Your task to perform on an android device: Search for usb-c to usb-b on ebay.com, select the first entry, add it to the cart, then select checkout. Image 0: 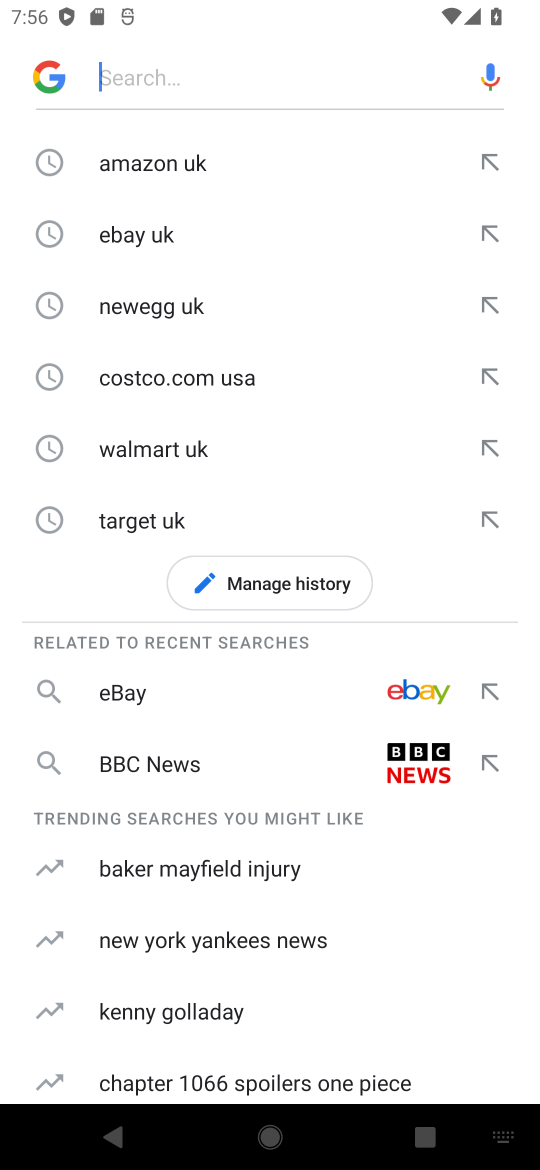
Step 0: press home button
Your task to perform on an android device: Search for usb-c to usb-b on ebay.com, select the first entry, add it to the cart, then select checkout. Image 1: 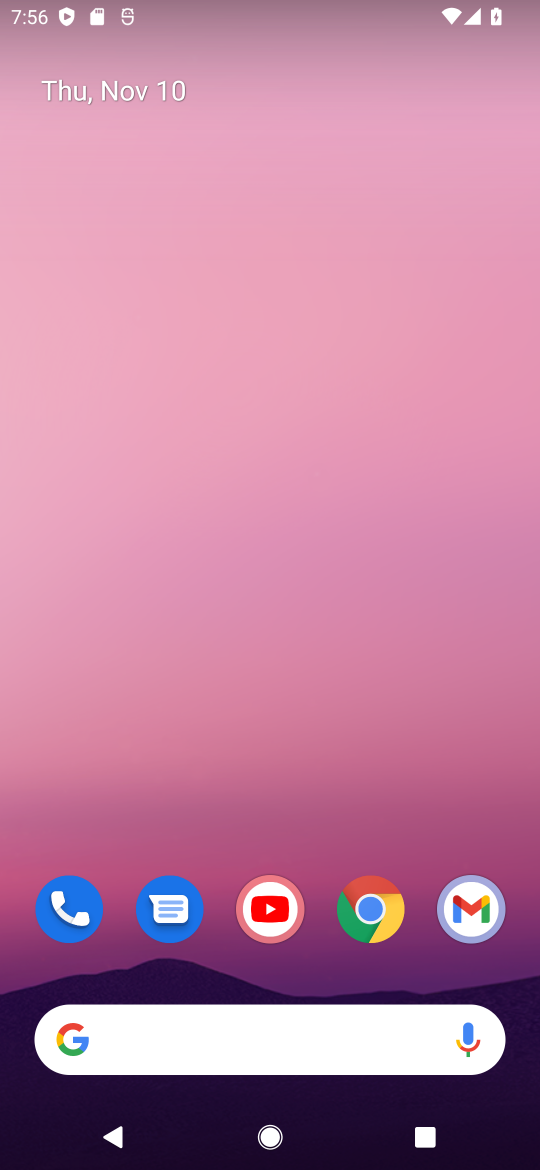
Step 1: drag from (240, 999) to (266, 137)
Your task to perform on an android device: Search for usb-c to usb-b on ebay.com, select the first entry, add it to the cart, then select checkout. Image 2: 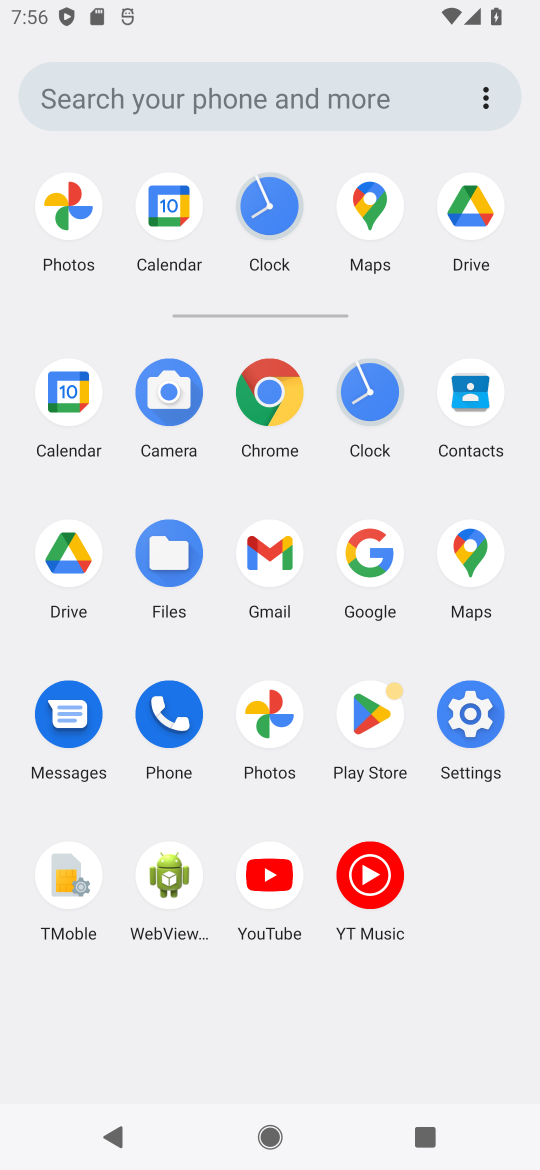
Step 2: click (362, 537)
Your task to perform on an android device: Search for usb-c to usb-b on ebay.com, select the first entry, add it to the cart, then select checkout. Image 3: 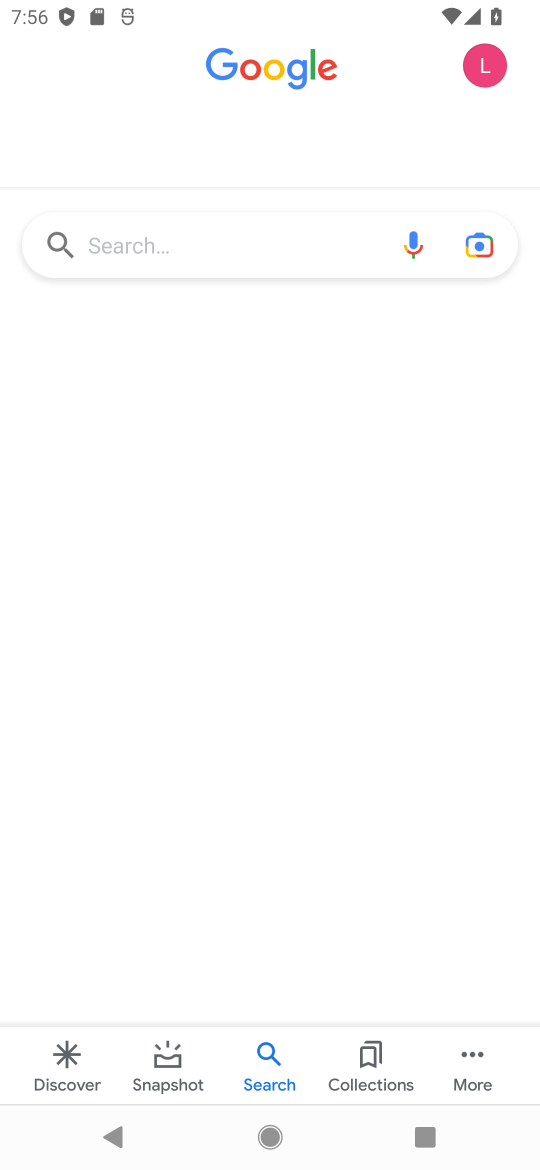
Step 3: click (222, 235)
Your task to perform on an android device: Search for usb-c to usb-b on ebay.com, select the first entry, add it to the cart, then select checkout. Image 4: 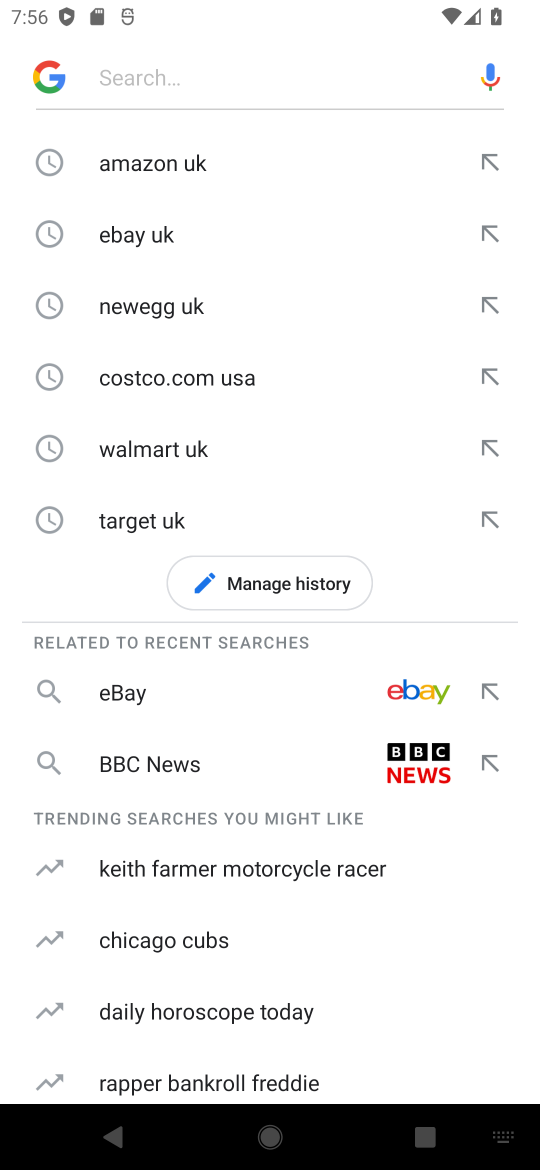
Step 4: type "ebay "
Your task to perform on an android device: Search for usb-c to usb-b on ebay.com, select the first entry, add it to the cart, then select checkout. Image 5: 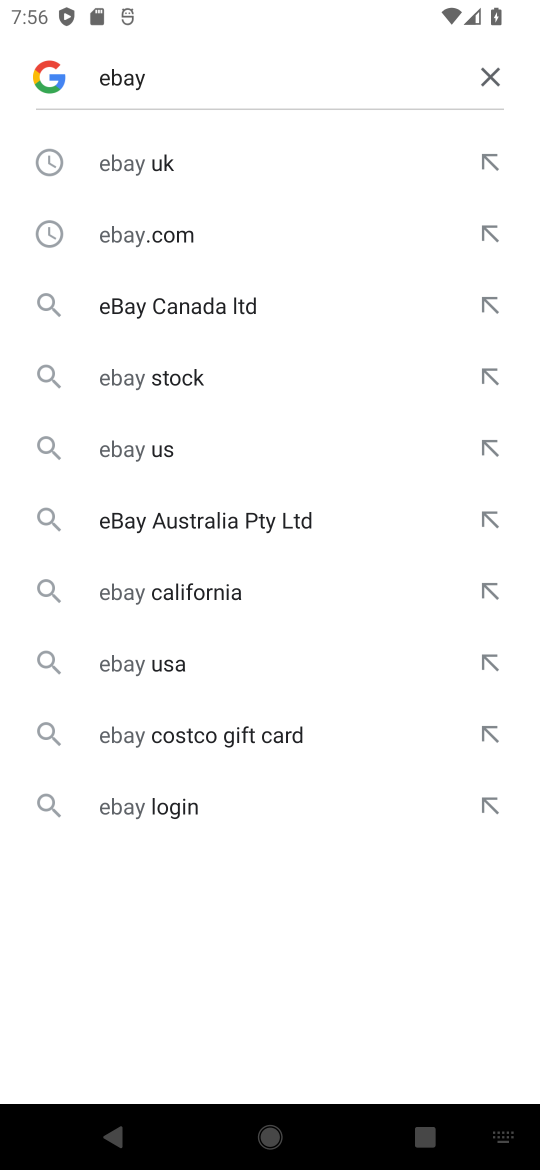
Step 5: click (153, 154)
Your task to perform on an android device: Search for usb-c to usb-b on ebay.com, select the first entry, add it to the cart, then select checkout. Image 6: 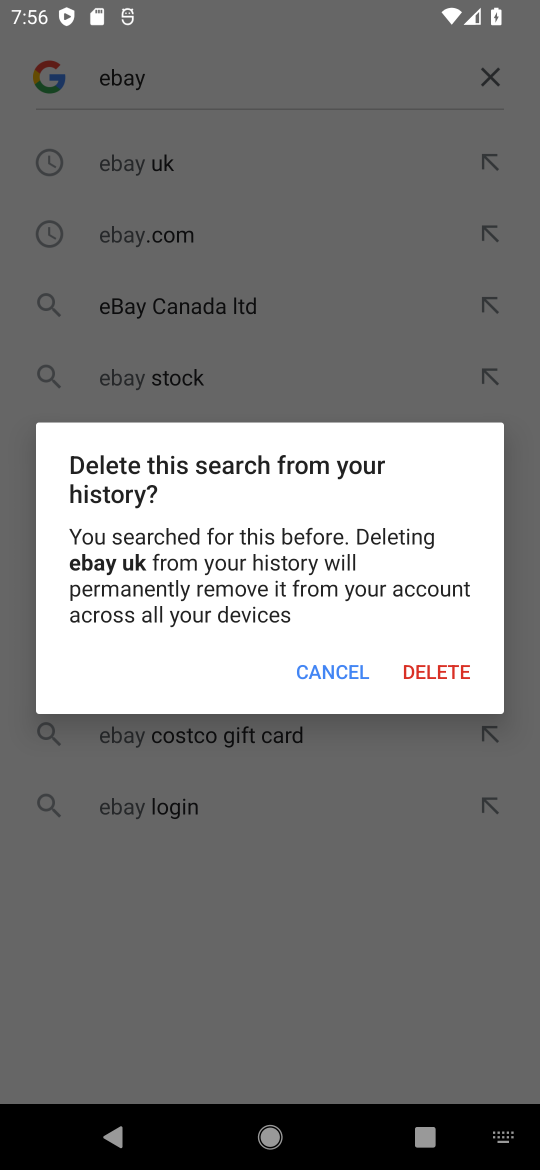
Step 6: click (293, 659)
Your task to perform on an android device: Search for usb-c to usb-b on ebay.com, select the first entry, add it to the cart, then select checkout. Image 7: 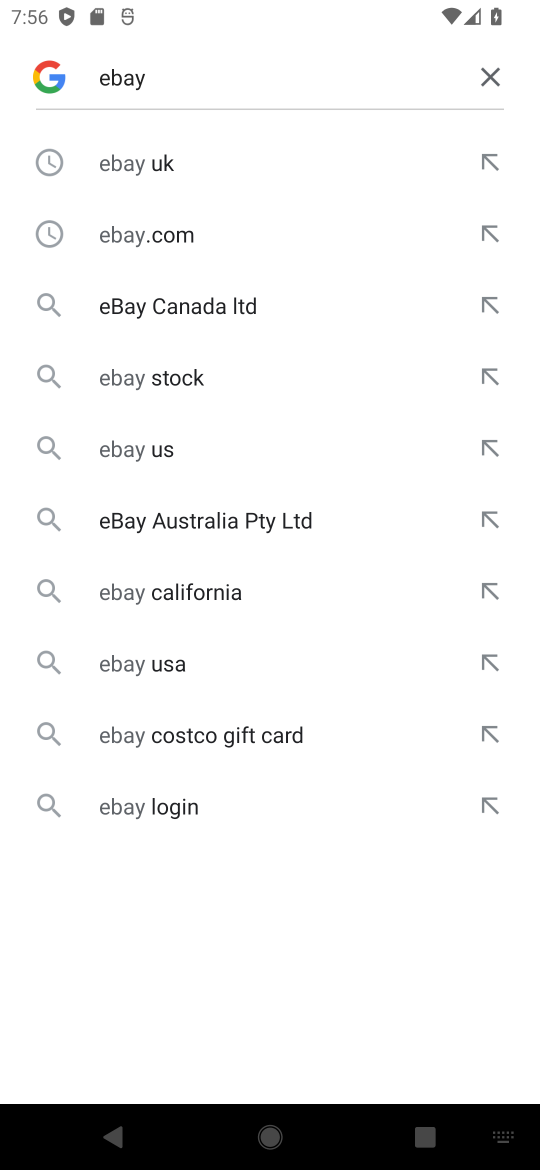
Step 7: click (170, 221)
Your task to perform on an android device: Search for usb-c to usb-b on ebay.com, select the first entry, add it to the cart, then select checkout. Image 8: 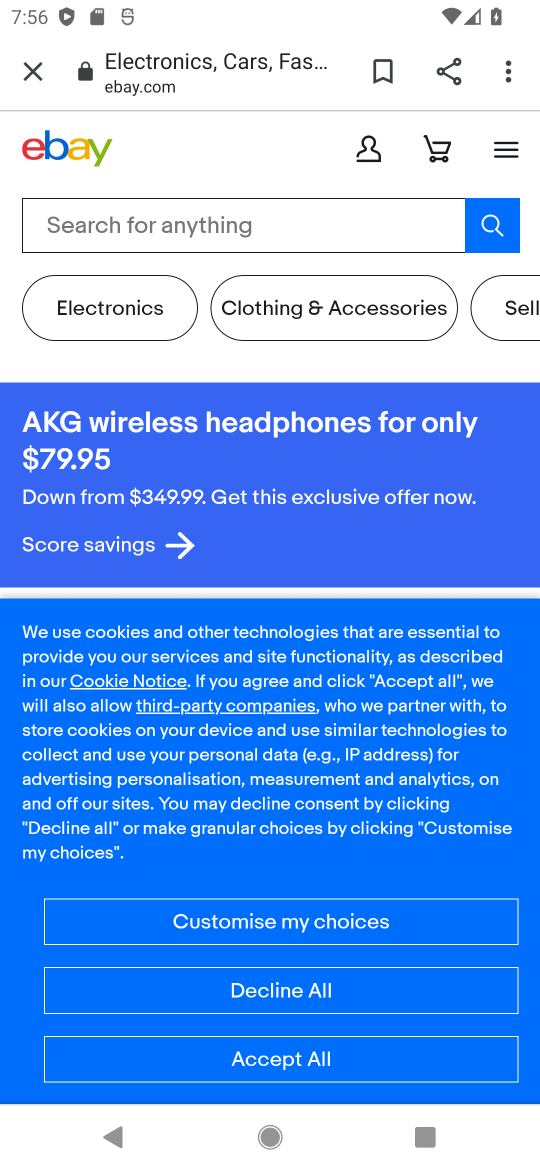
Step 8: click (156, 215)
Your task to perform on an android device: Search for usb-c to usb-b on ebay.com, select the first entry, add it to the cart, then select checkout. Image 9: 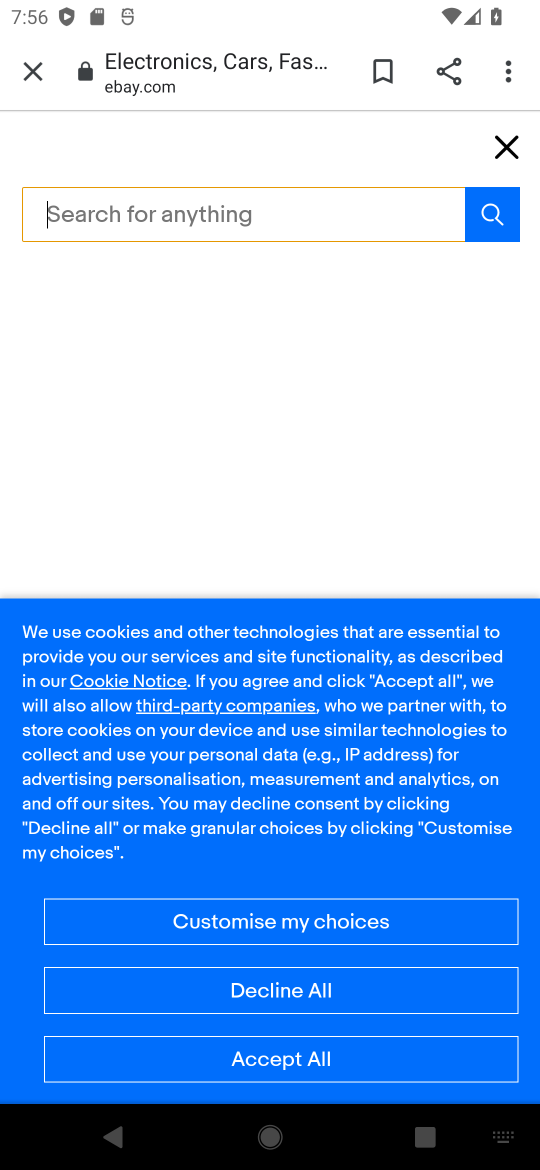
Step 9: click (317, 1042)
Your task to perform on an android device: Search for usb-c to usb-b on ebay.com, select the first entry, add it to the cart, then select checkout. Image 10: 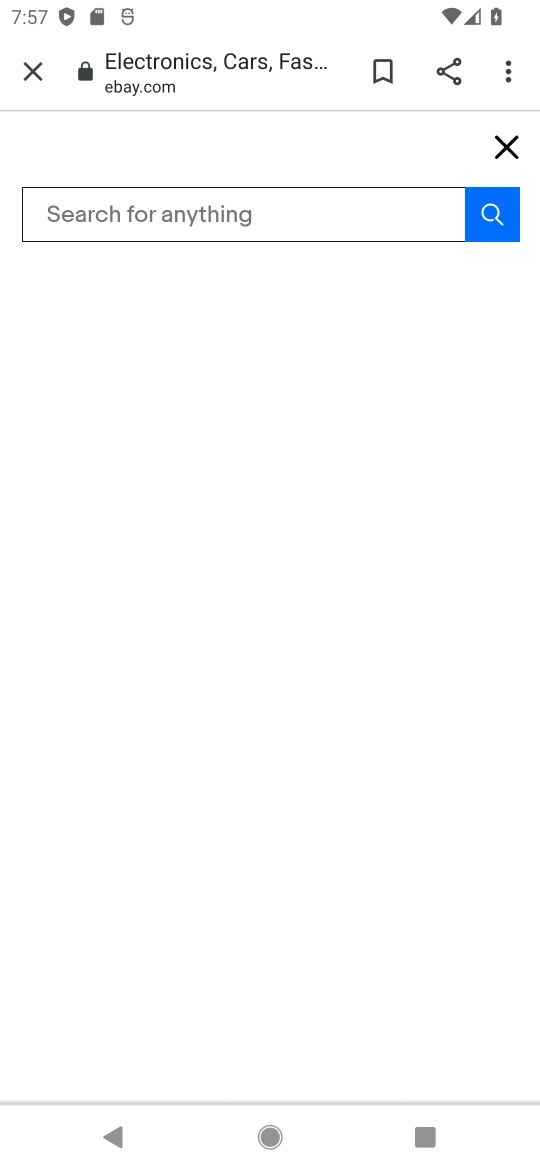
Step 10: click (273, 213)
Your task to perform on an android device: Search for usb-c to usb-b on ebay.com, select the first entry, add it to the cart, then select checkout. Image 11: 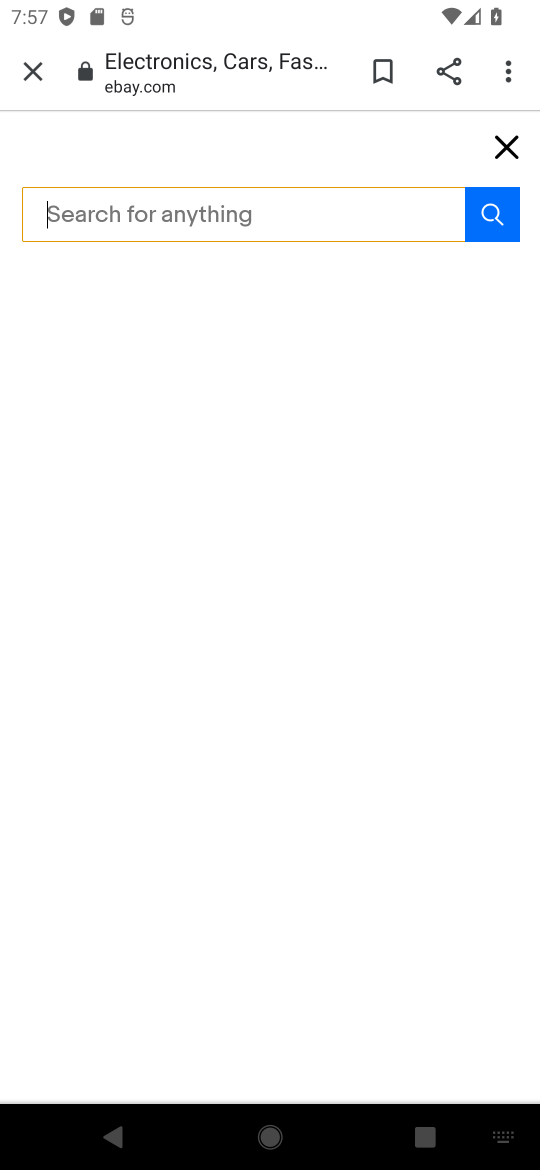
Step 11: type "usb-c to usb-b  "
Your task to perform on an android device: Search for usb-c to usb-b on ebay.com, select the first entry, add it to the cart, then select checkout. Image 12: 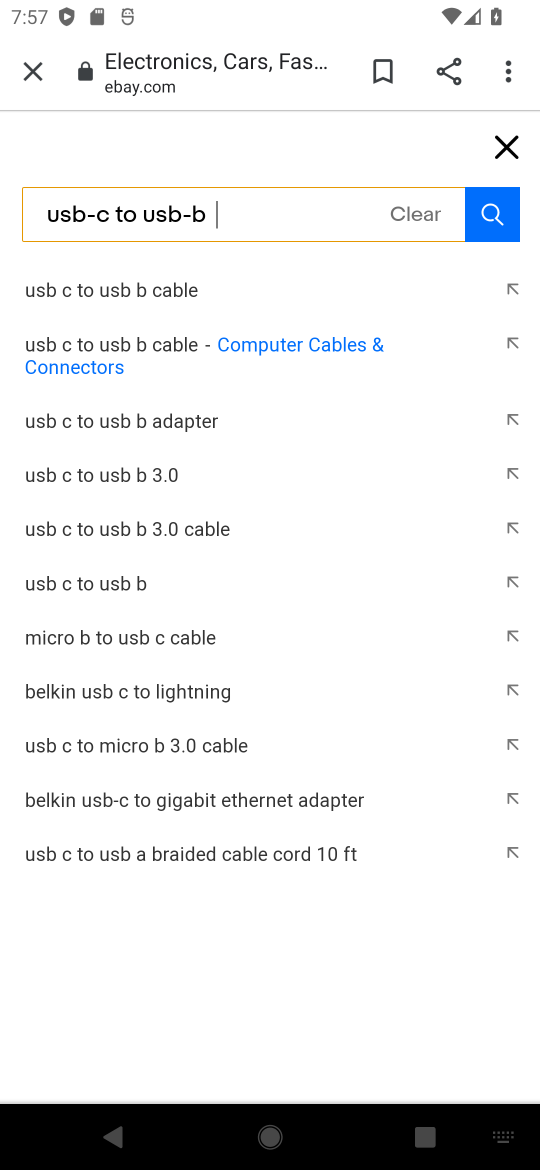
Step 12: click (88, 586)
Your task to perform on an android device: Search for usb-c to usb-b on ebay.com, select the first entry, add it to the cart, then select checkout. Image 13: 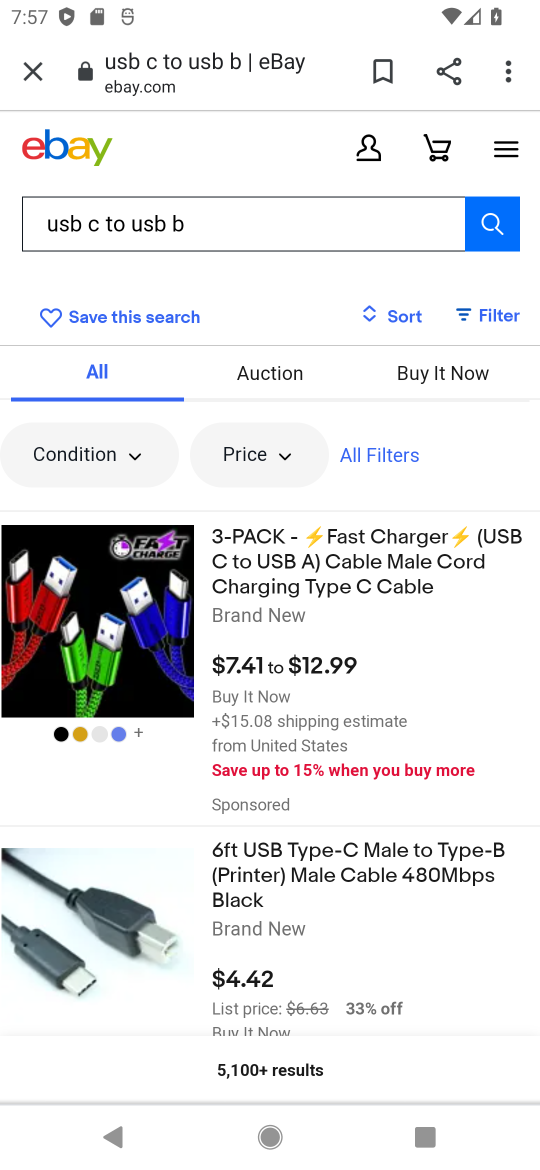
Step 13: drag from (327, 921) to (343, 668)
Your task to perform on an android device: Search for usb-c to usb-b on ebay.com, select the first entry, add it to the cart, then select checkout. Image 14: 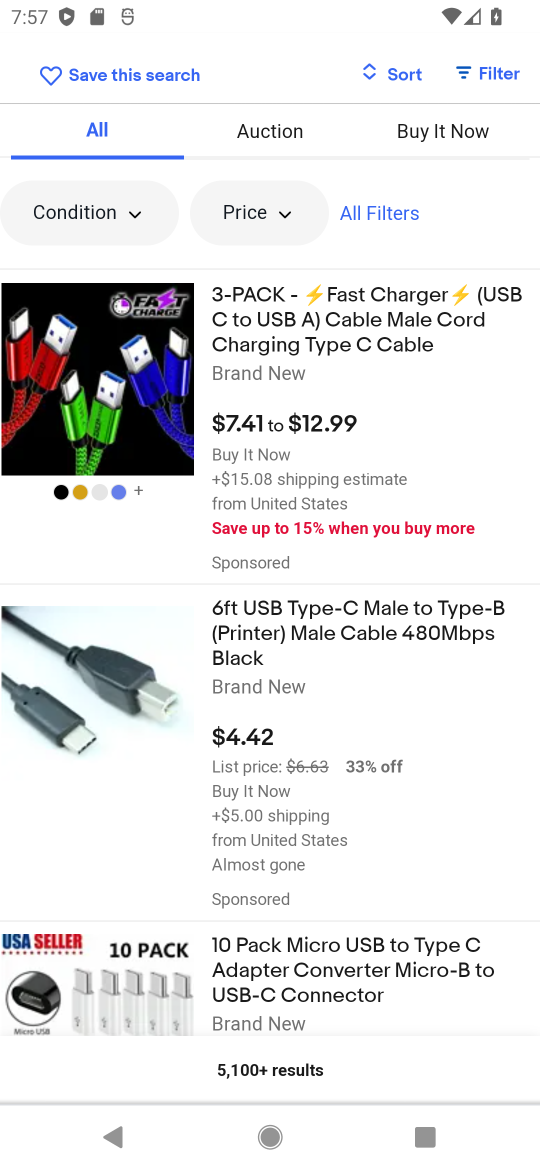
Step 14: click (340, 628)
Your task to perform on an android device: Search for usb-c to usb-b on ebay.com, select the first entry, add it to the cart, then select checkout. Image 15: 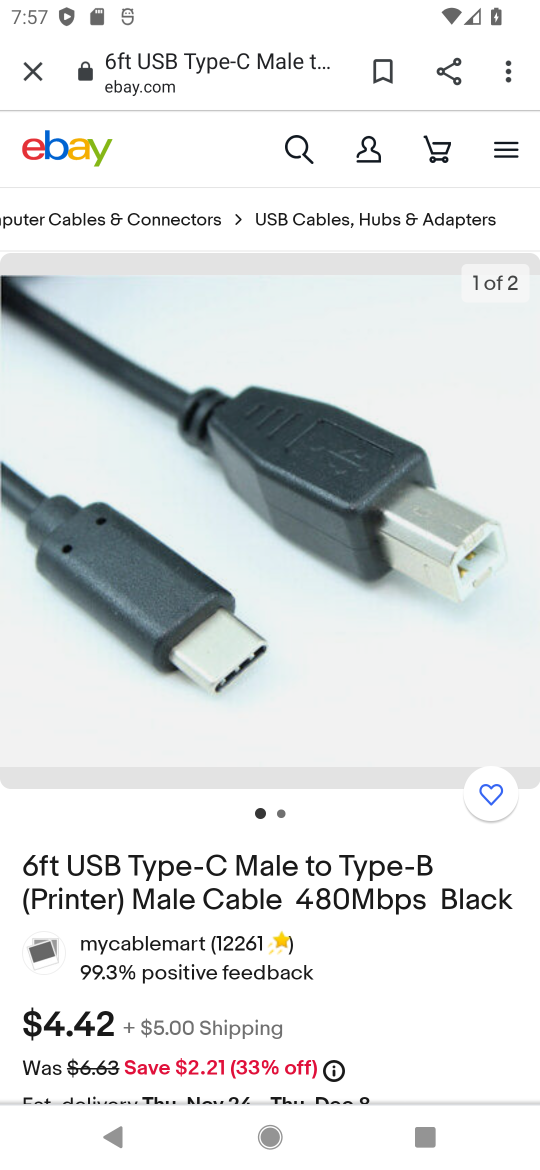
Step 15: drag from (355, 1006) to (400, 408)
Your task to perform on an android device: Search for usb-c to usb-b on ebay.com, select the first entry, add it to the cart, then select checkout. Image 16: 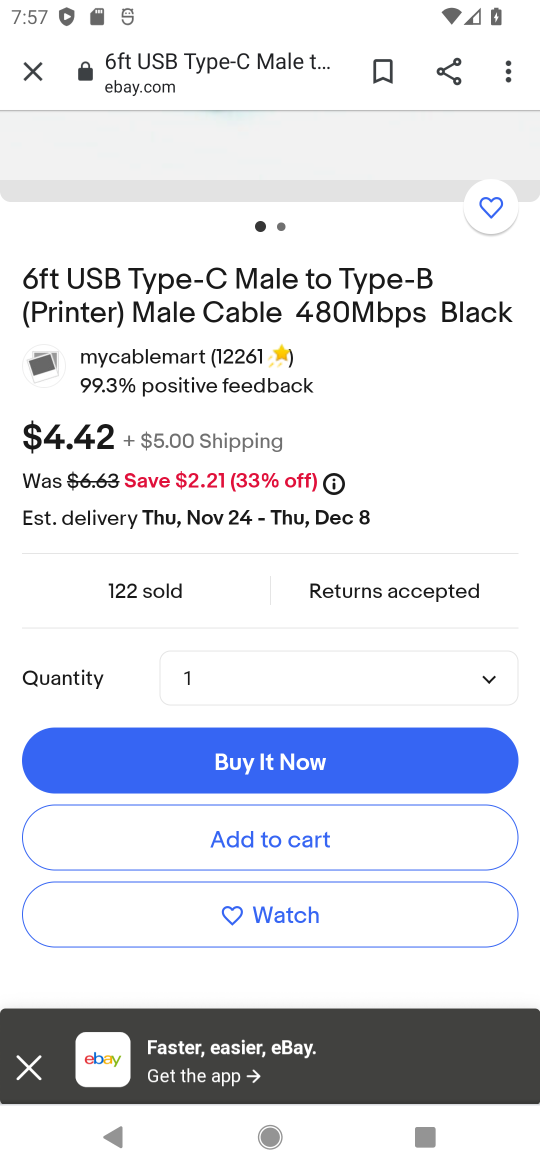
Step 16: click (19, 1076)
Your task to perform on an android device: Search for usb-c to usb-b on ebay.com, select the first entry, add it to the cart, then select checkout. Image 17: 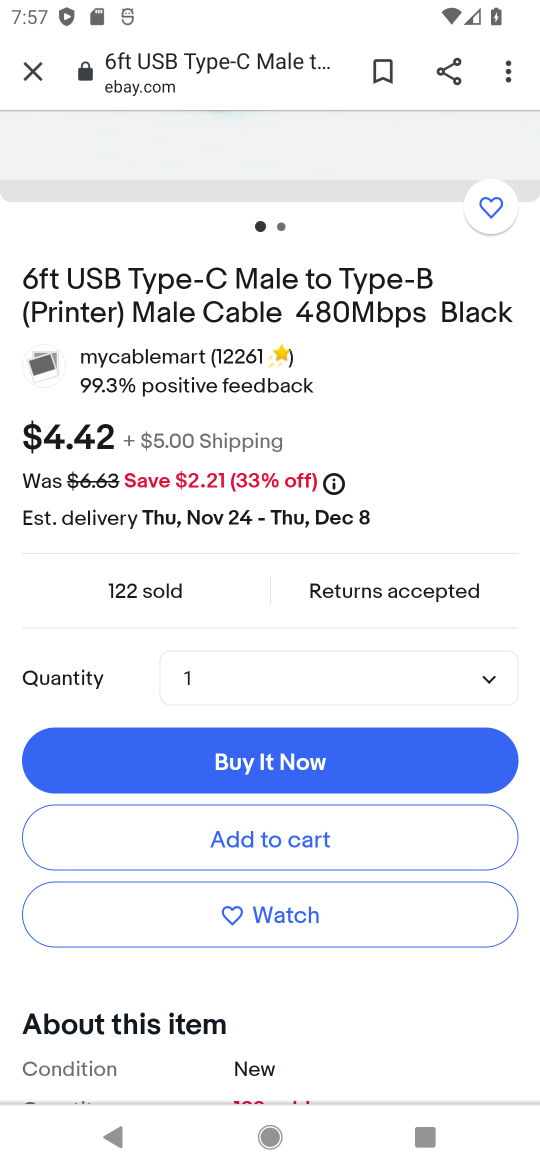
Step 17: click (306, 832)
Your task to perform on an android device: Search for usb-c to usb-b on ebay.com, select the first entry, add it to the cart, then select checkout. Image 18: 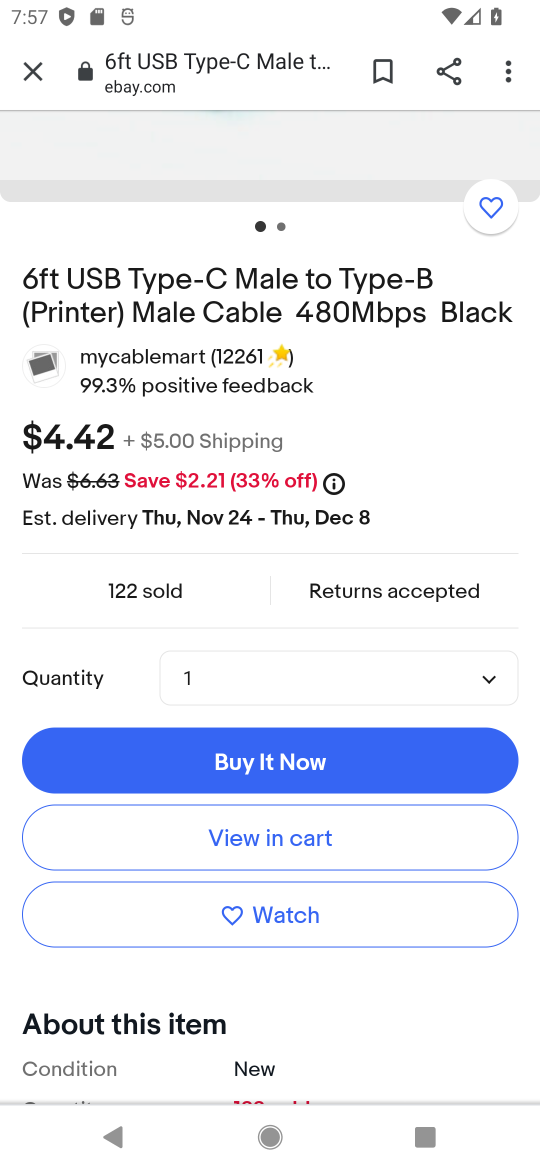
Step 18: task complete